Your task to perform on an android device: turn on notifications settings in the gmail app Image 0: 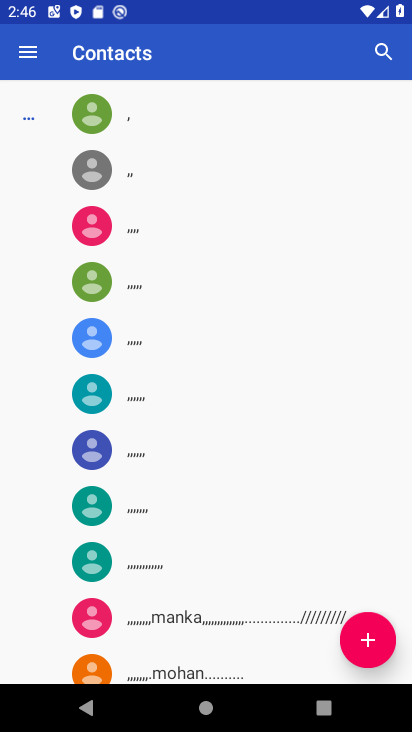
Step 0: press home button
Your task to perform on an android device: turn on notifications settings in the gmail app Image 1: 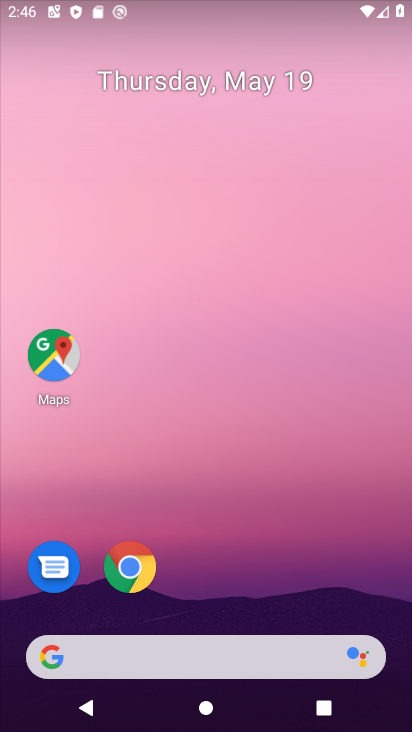
Step 1: drag from (240, 723) to (241, 237)
Your task to perform on an android device: turn on notifications settings in the gmail app Image 2: 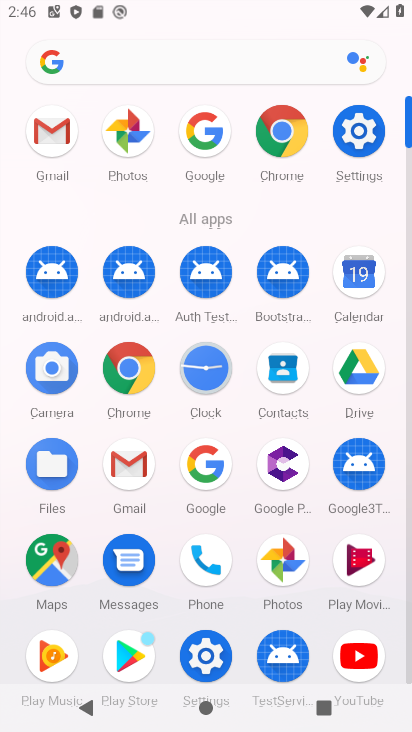
Step 2: click (120, 458)
Your task to perform on an android device: turn on notifications settings in the gmail app Image 3: 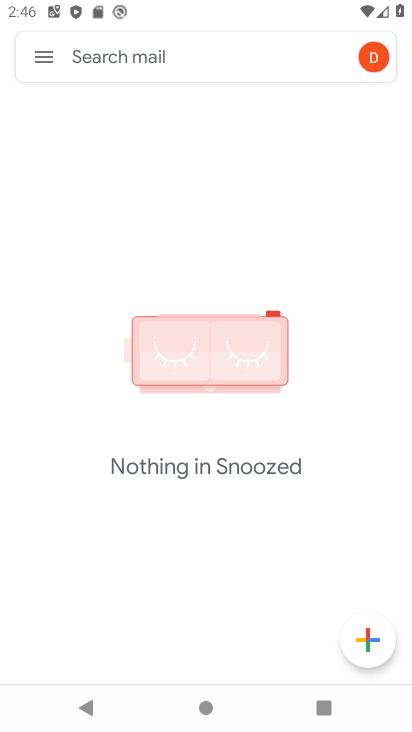
Step 3: click (40, 53)
Your task to perform on an android device: turn on notifications settings in the gmail app Image 4: 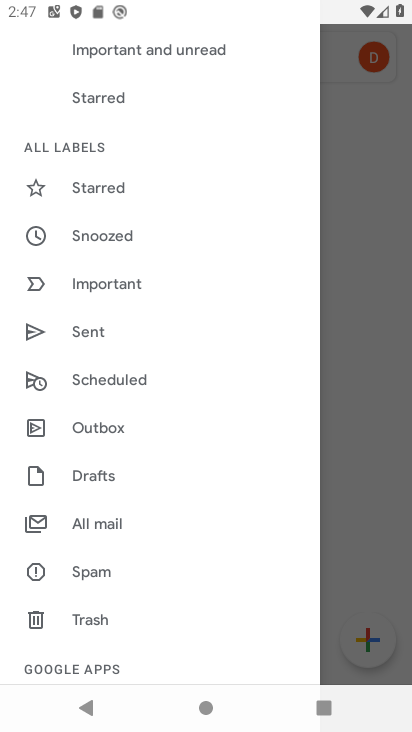
Step 4: drag from (112, 640) to (120, 308)
Your task to perform on an android device: turn on notifications settings in the gmail app Image 5: 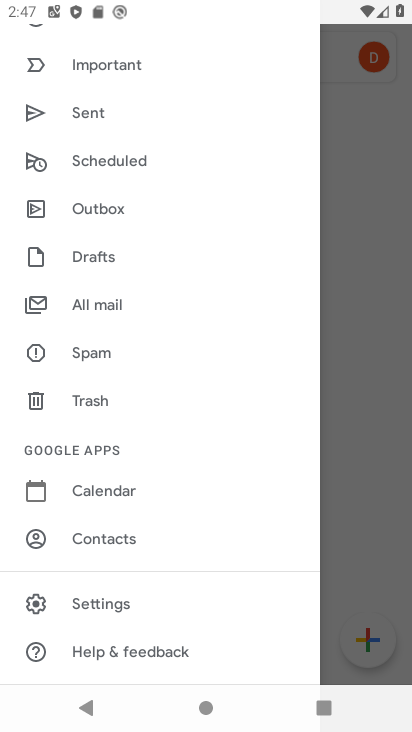
Step 5: click (78, 601)
Your task to perform on an android device: turn on notifications settings in the gmail app Image 6: 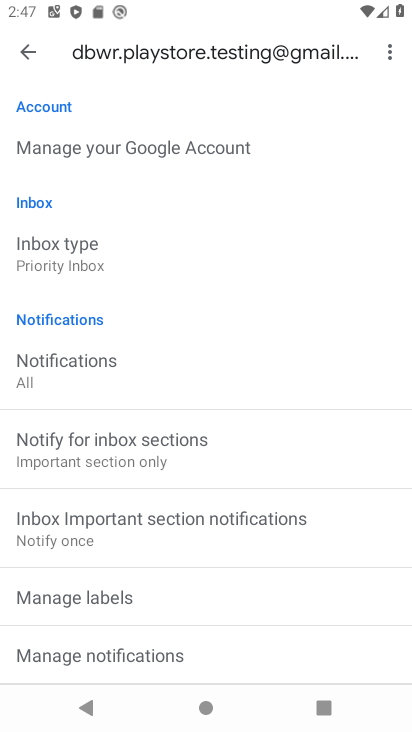
Step 6: task complete